Your task to perform on an android device: Find coffee shops on Maps Image 0: 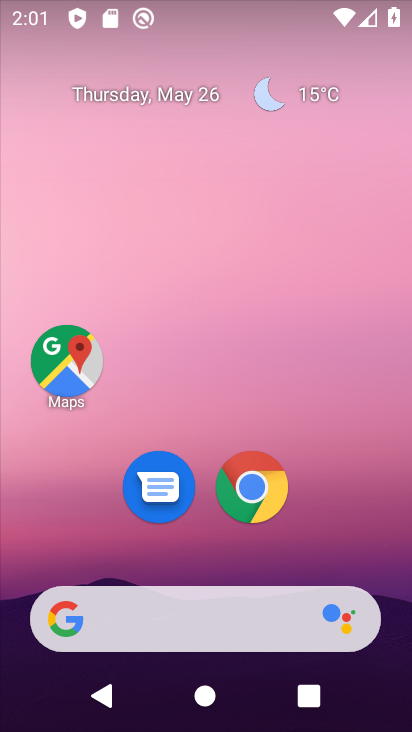
Step 0: click (50, 345)
Your task to perform on an android device: Find coffee shops on Maps Image 1: 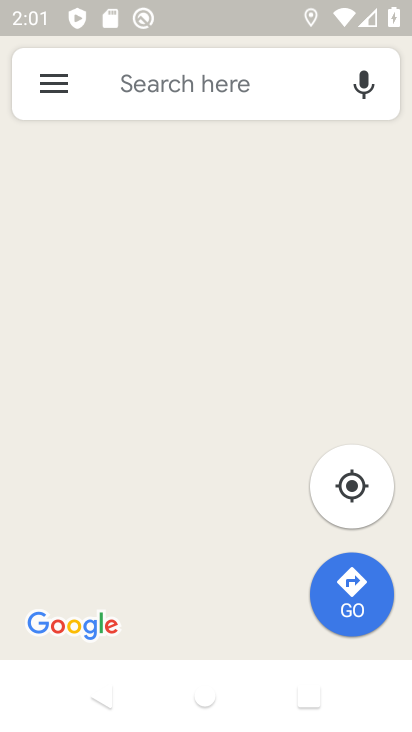
Step 1: click (166, 72)
Your task to perform on an android device: Find coffee shops on Maps Image 2: 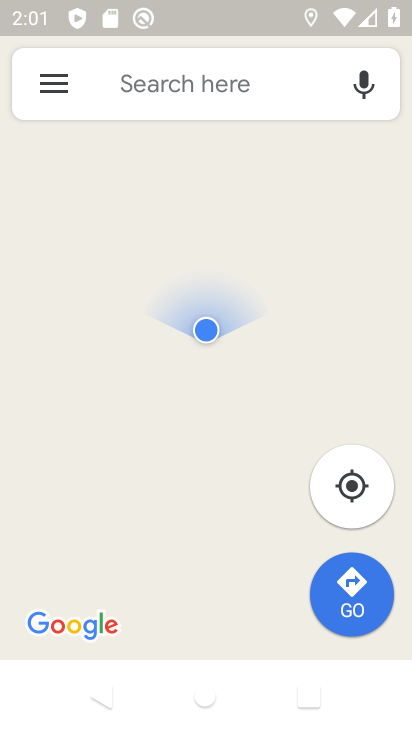
Step 2: click (166, 72)
Your task to perform on an android device: Find coffee shops on Maps Image 3: 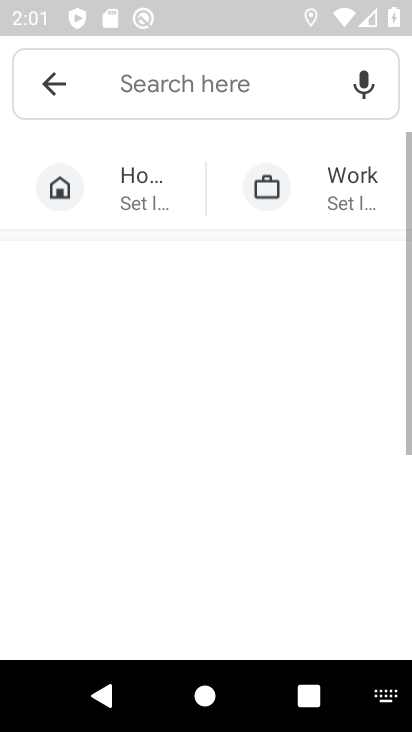
Step 3: type "coffee shops"
Your task to perform on an android device: Find coffee shops on Maps Image 4: 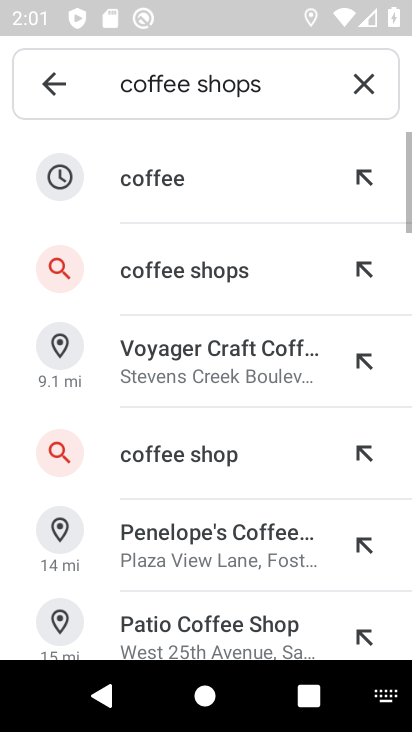
Step 4: click (222, 265)
Your task to perform on an android device: Find coffee shops on Maps Image 5: 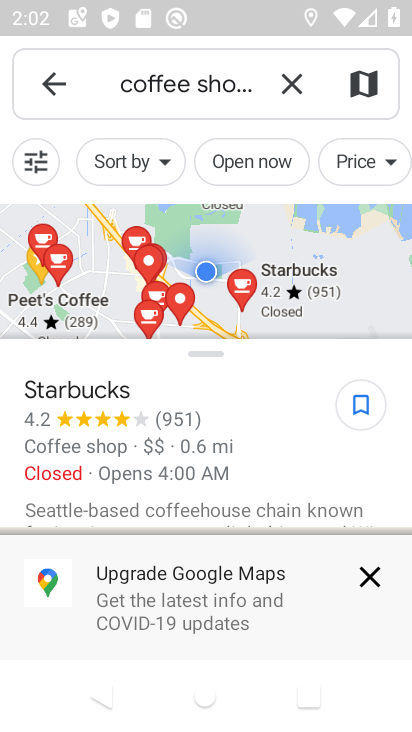
Step 5: task complete